Your task to perform on an android device: Go to display settings Image 0: 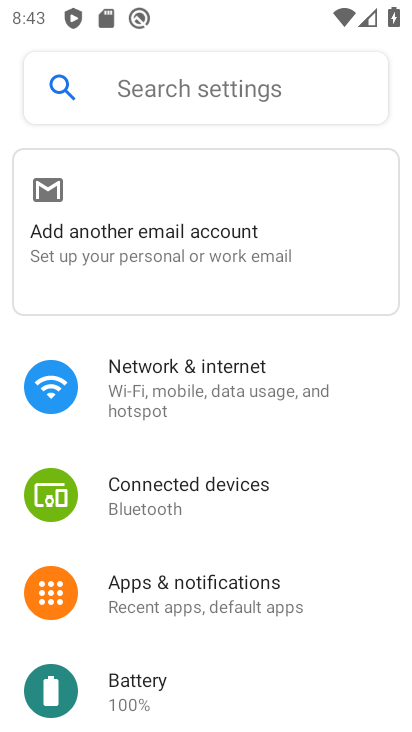
Step 0: drag from (157, 642) to (218, 319)
Your task to perform on an android device: Go to display settings Image 1: 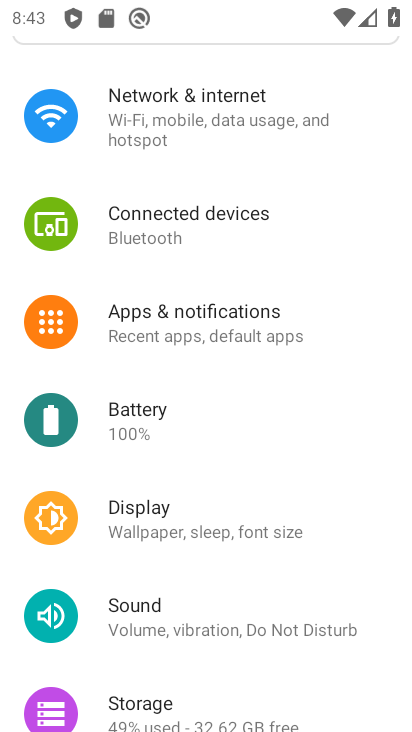
Step 1: click (152, 529)
Your task to perform on an android device: Go to display settings Image 2: 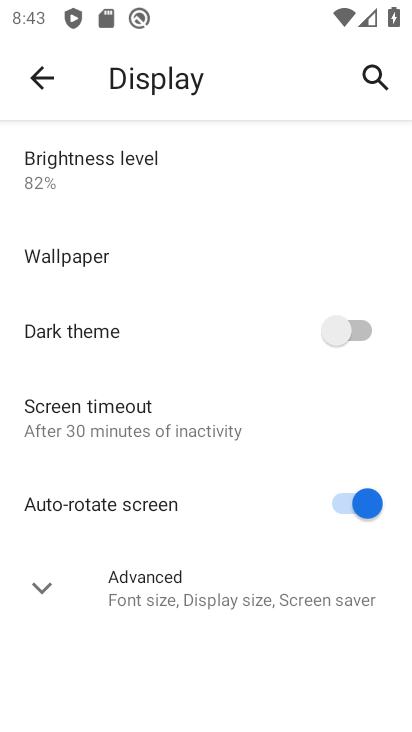
Step 2: task complete